Your task to perform on an android device: Go to calendar. Show me events next week Image 0: 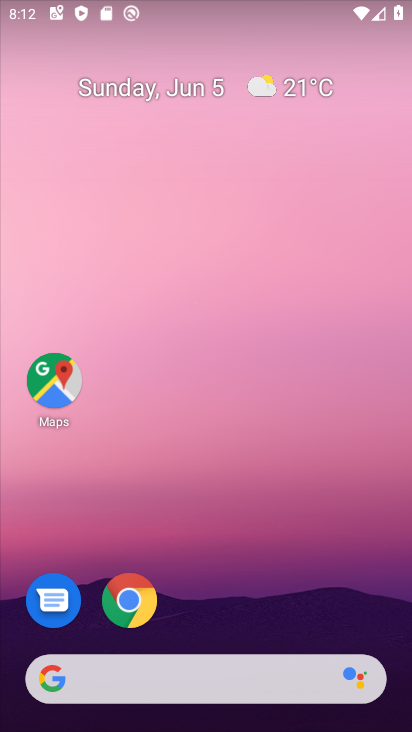
Step 0: drag from (159, 724) to (194, 98)
Your task to perform on an android device: Go to calendar. Show me events next week Image 1: 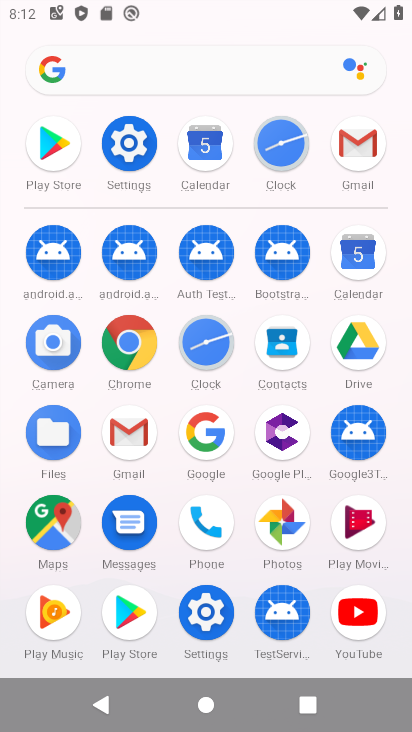
Step 1: click (203, 144)
Your task to perform on an android device: Go to calendar. Show me events next week Image 2: 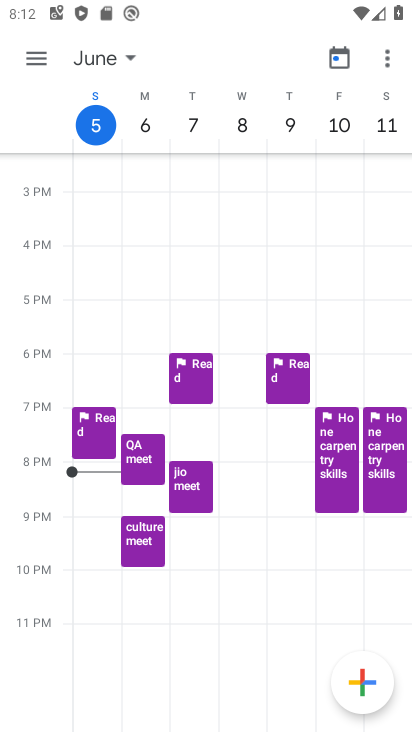
Step 2: task complete